Your task to perform on an android device: change the upload size in google photos Image 0: 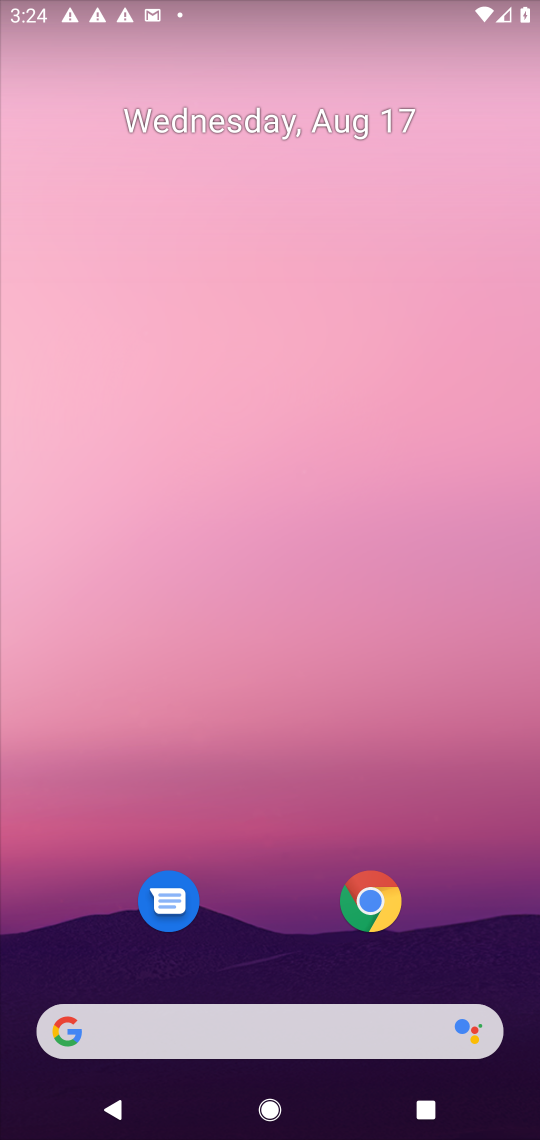
Step 0: drag from (249, 977) to (222, 547)
Your task to perform on an android device: change the upload size in google photos Image 1: 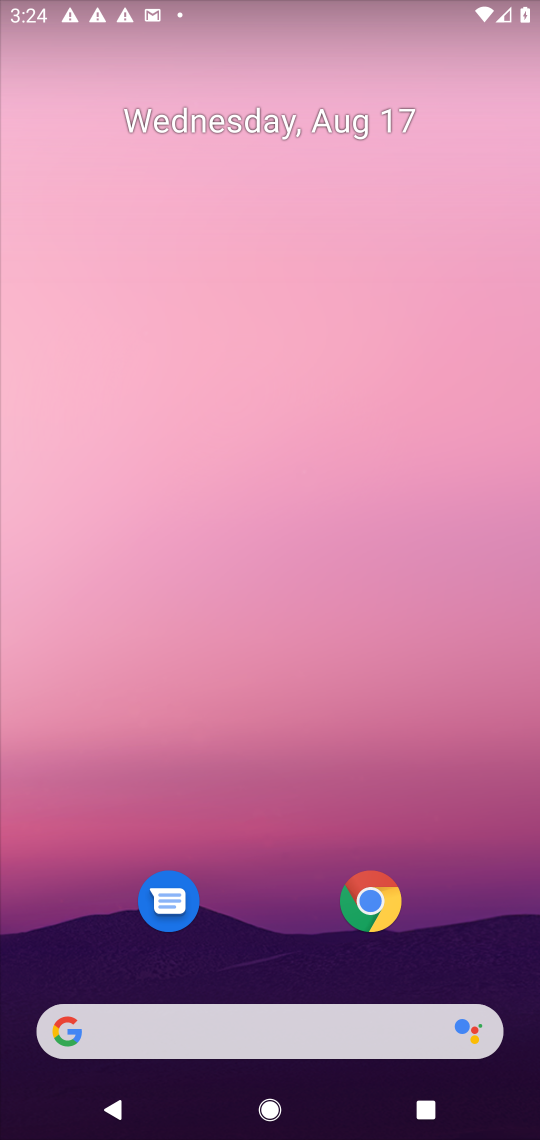
Step 1: drag from (226, 978) to (215, 841)
Your task to perform on an android device: change the upload size in google photos Image 2: 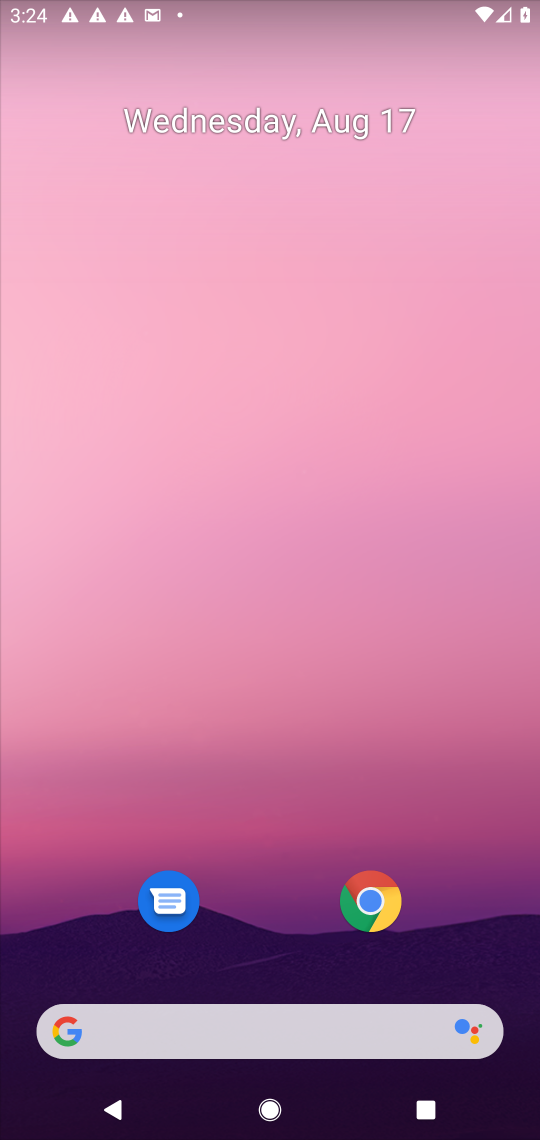
Step 2: drag from (249, 1008) to (246, 80)
Your task to perform on an android device: change the upload size in google photos Image 3: 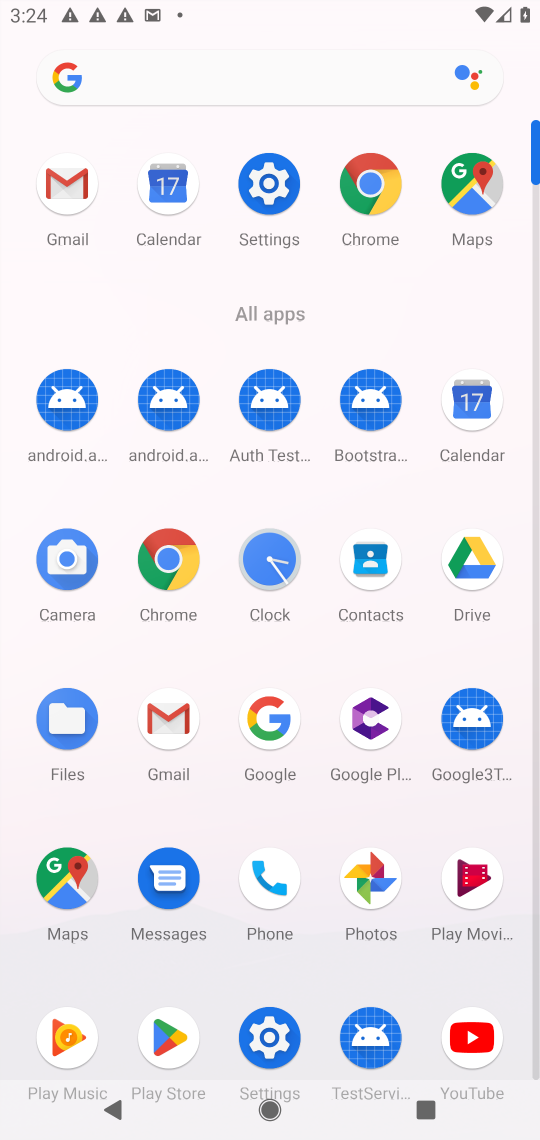
Step 3: click (357, 869)
Your task to perform on an android device: change the upload size in google photos Image 4: 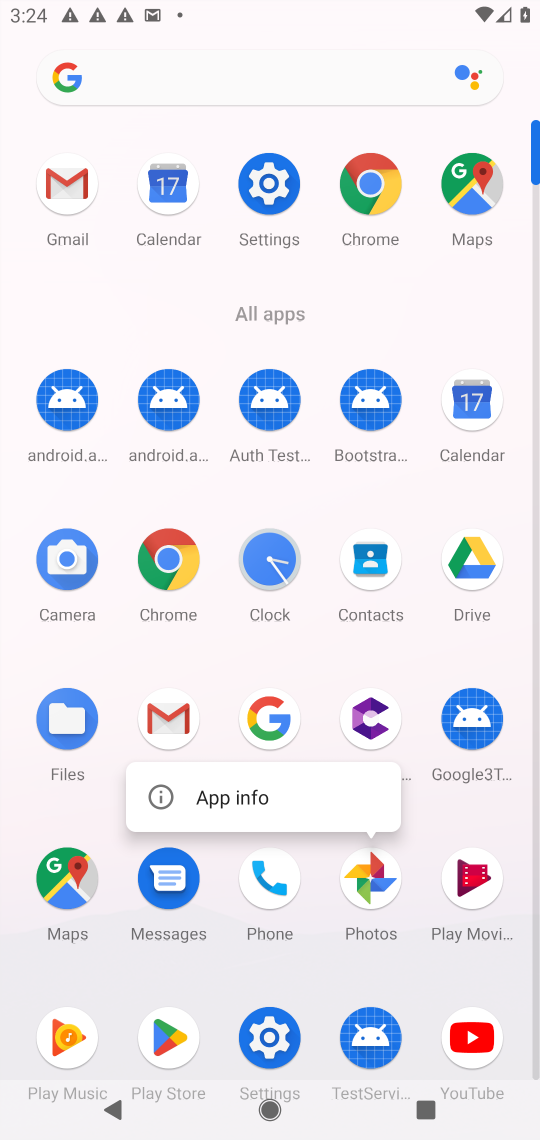
Step 4: click (374, 881)
Your task to perform on an android device: change the upload size in google photos Image 5: 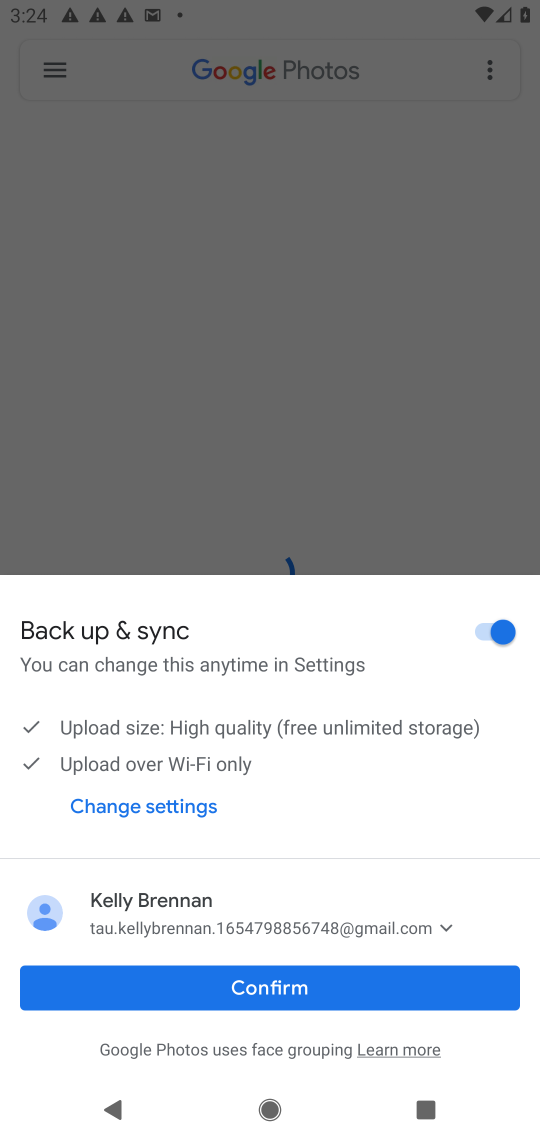
Step 5: click (272, 991)
Your task to perform on an android device: change the upload size in google photos Image 6: 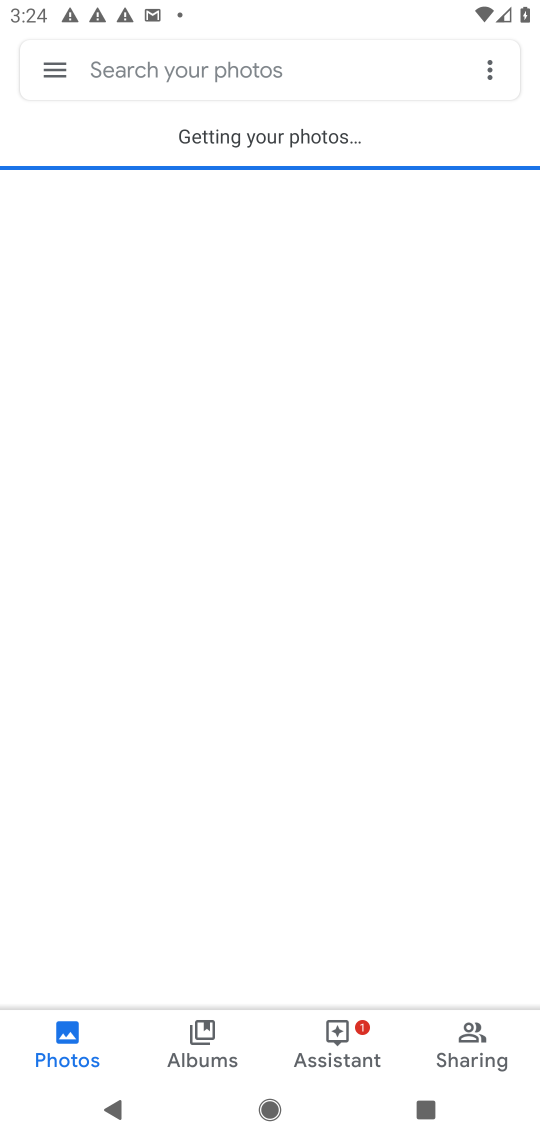
Step 6: click (48, 70)
Your task to perform on an android device: change the upload size in google photos Image 7: 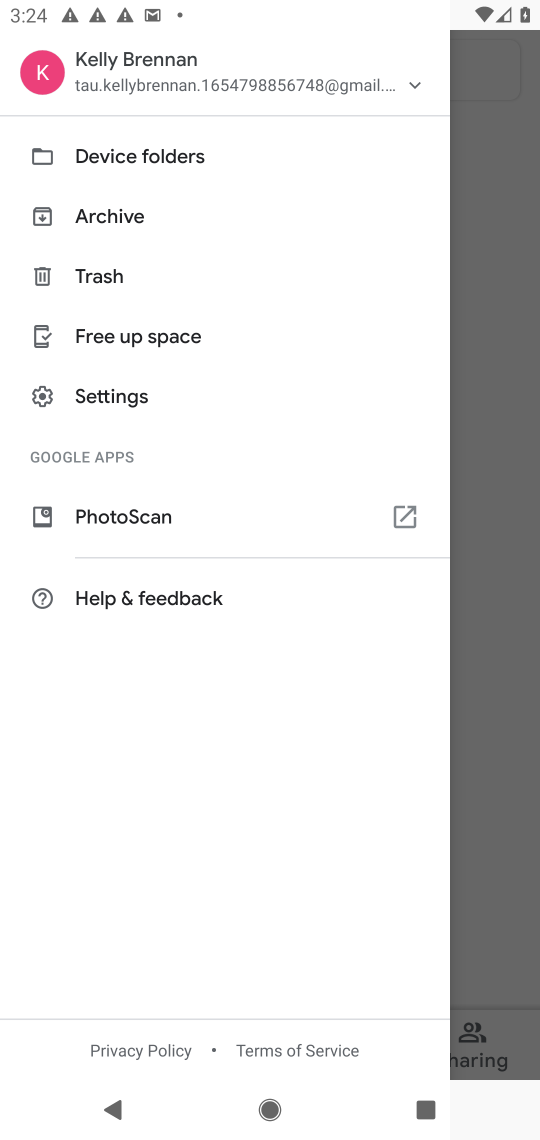
Step 7: click (103, 390)
Your task to perform on an android device: change the upload size in google photos Image 8: 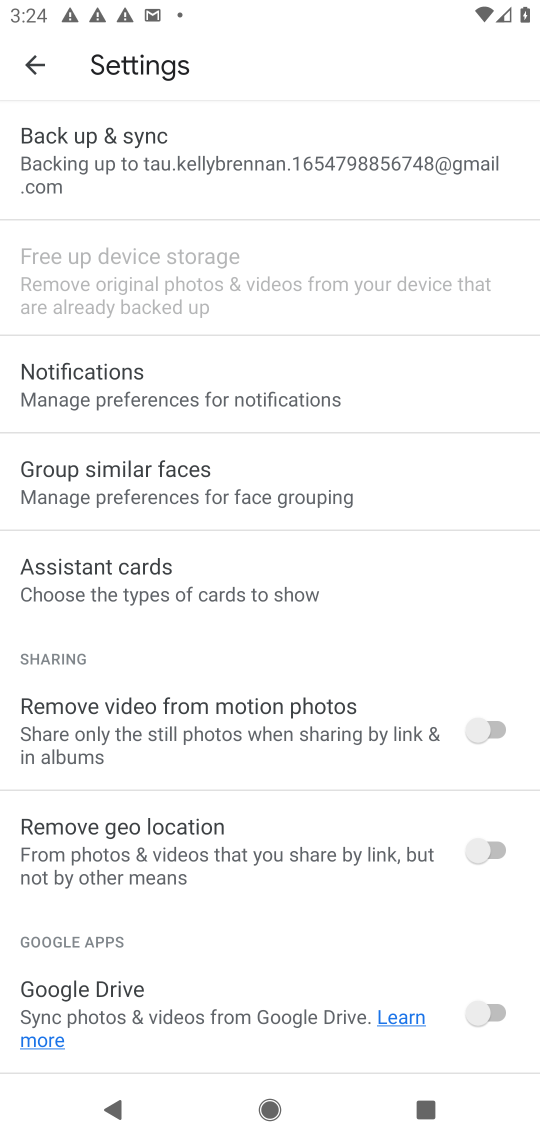
Step 8: click (92, 151)
Your task to perform on an android device: change the upload size in google photos Image 9: 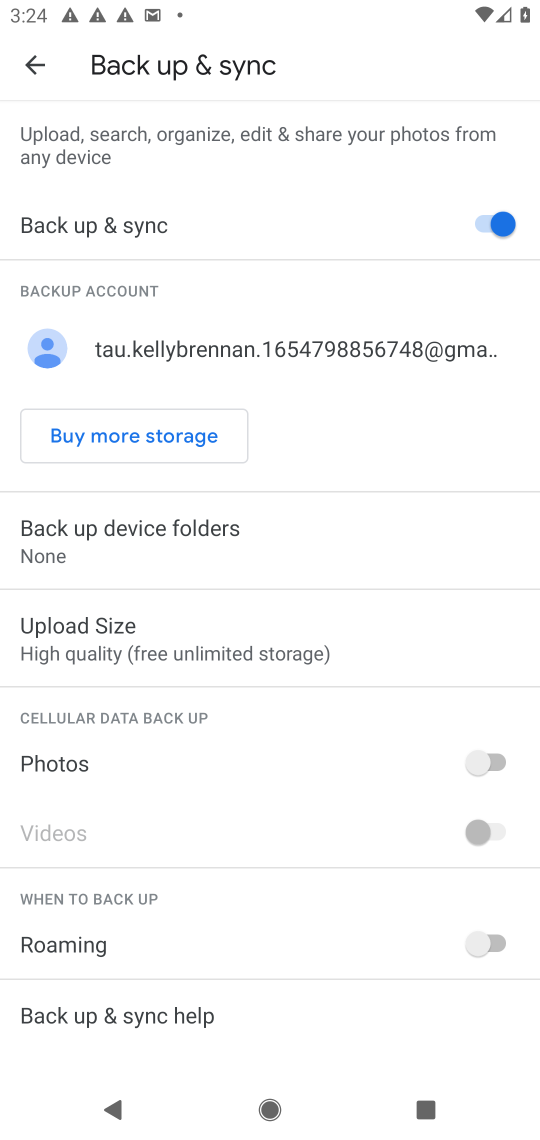
Step 9: click (74, 658)
Your task to perform on an android device: change the upload size in google photos Image 10: 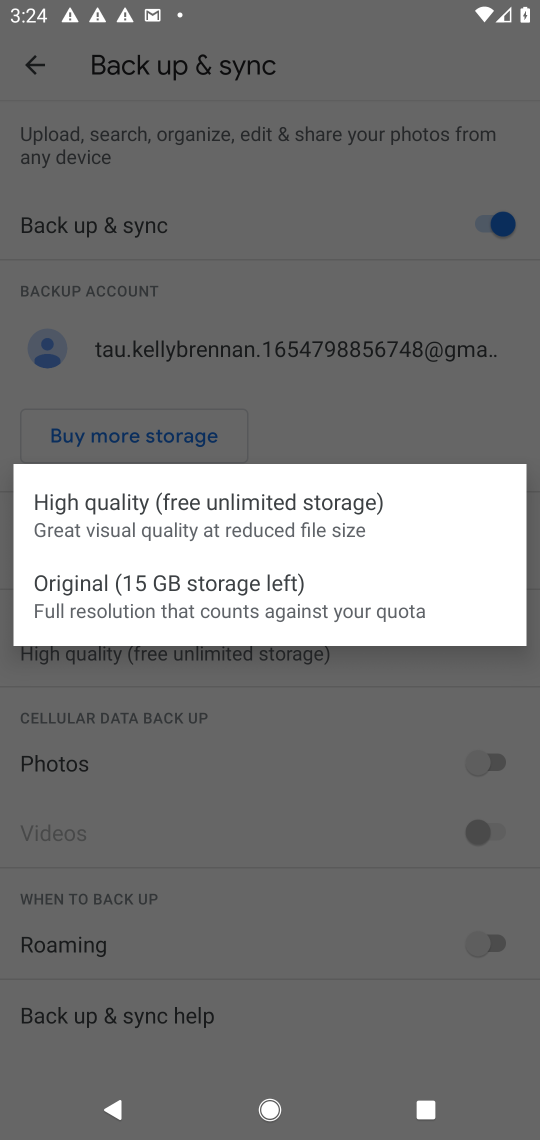
Step 10: click (81, 601)
Your task to perform on an android device: change the upload size in google photos Image 11: 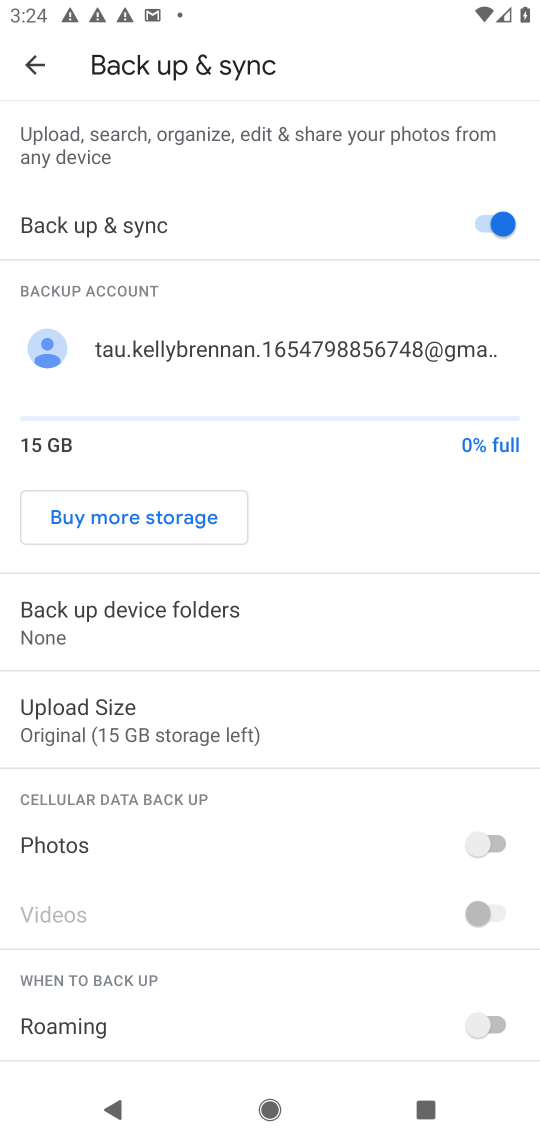
Step 11: task complete